Your task to perform on an android device: Open privacy settings Image 0: 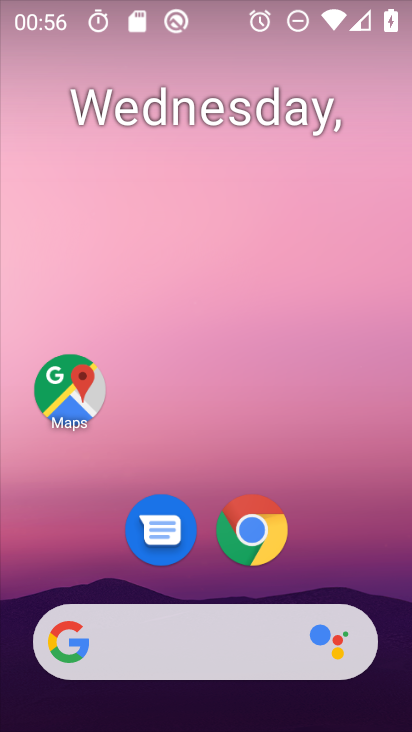
Step 0: drag from (89, 579) to (126, 98)
Your task to perform on an android device: Open privacy settings Image 1: 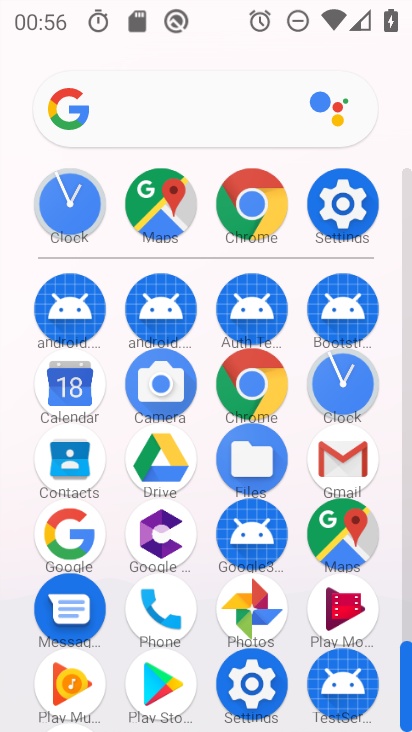
Step 1: click (348, 211)
Your task to perform on an android device: Open privacy settings Image 2: 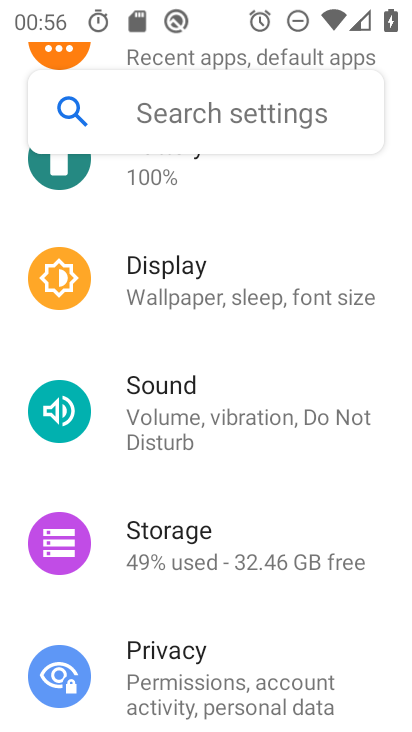
Step 2: drag from (234, 247) to (186, 161)
Your task to perform on an android device: Open privacy settings Image 3: 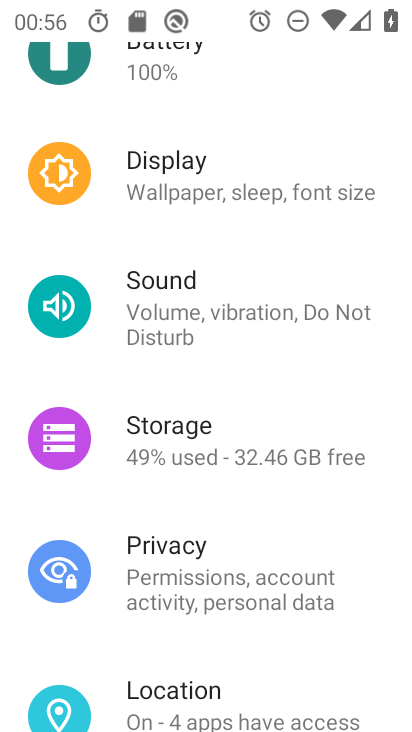
Step 3: click (248, 577)
Your task to perform on an android device: Open privacy settings Image 4: 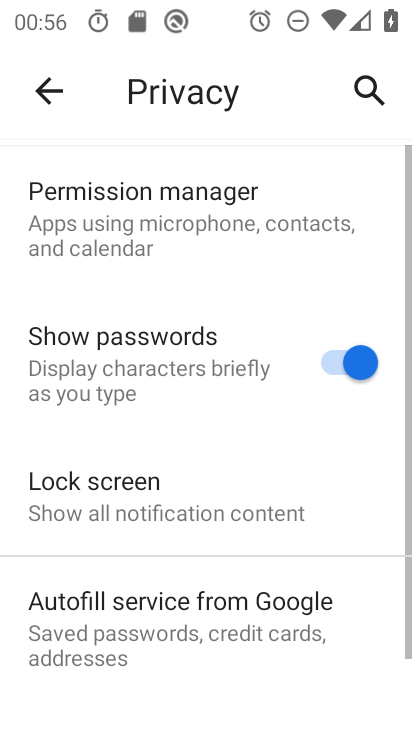
Step 4: task complete